Your task to perform on an android device: turn off smart reply in the gmail app Image 0: 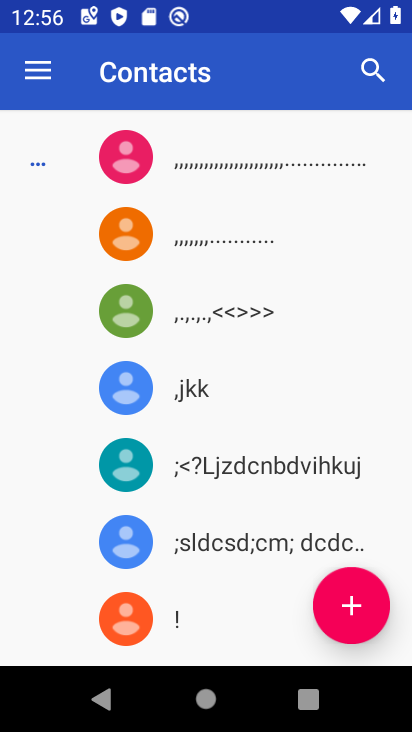
Step 0: press home button
Your task to perform on an android device: turn off smart reply in the gmail app Image 1: 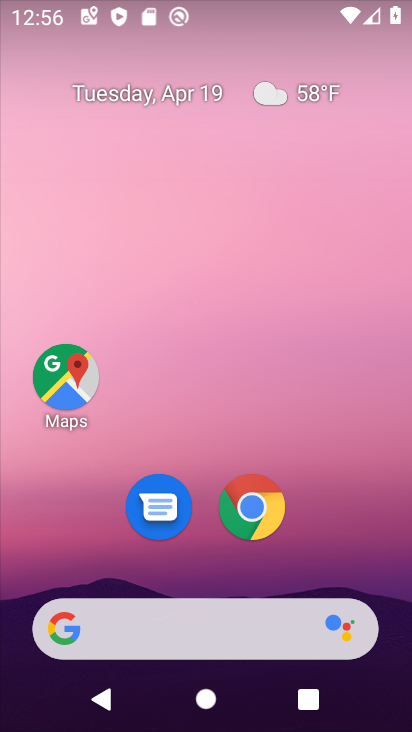
Step 1: drag from (185, 580) to (188, 191)
Your task to perform on an android device: turn off smart reply in the gmail app Image 2: 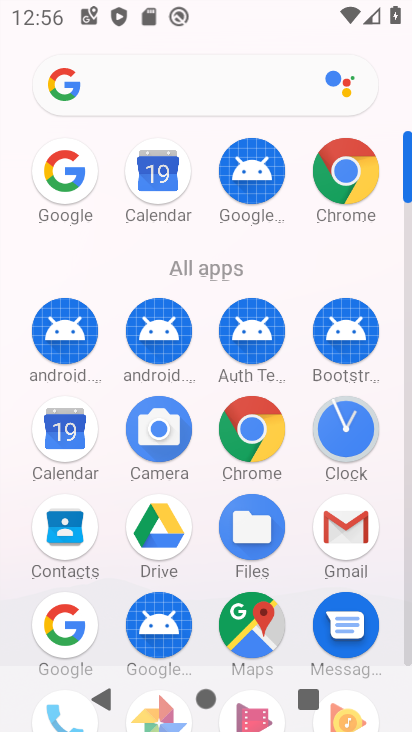
Step 2: click (354, 538)
Your task to perform on an android device: turn off smart reply in the gmail app Image 3: 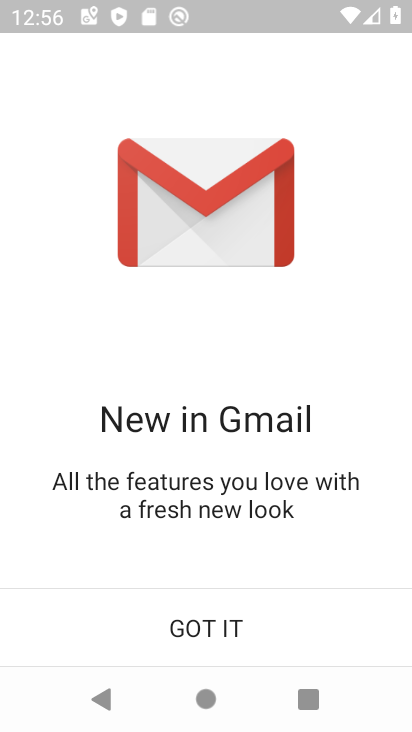
Step 3: click (225, 633)
Your task to perform on an android device: turn off smart reply in the gmail app Image 4: 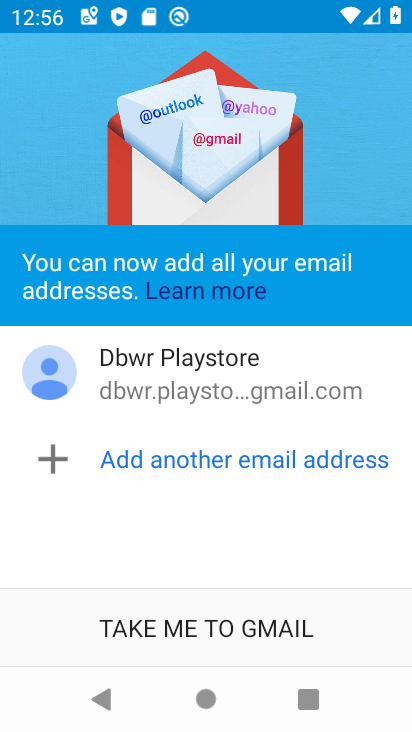
Step 4: click (197, 632)
Your task to perform on an android device: turn off smart reply in the gmail app Image 5: 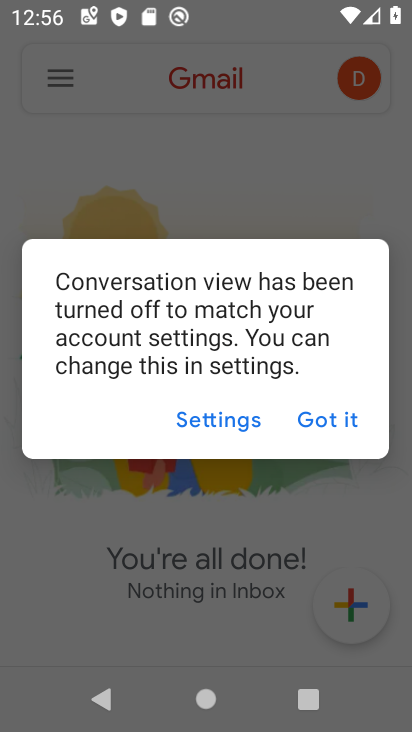
Step 5: click (337, 419)
Your task to perform on an android device: turn off smart reply in the gmail app Image 6: 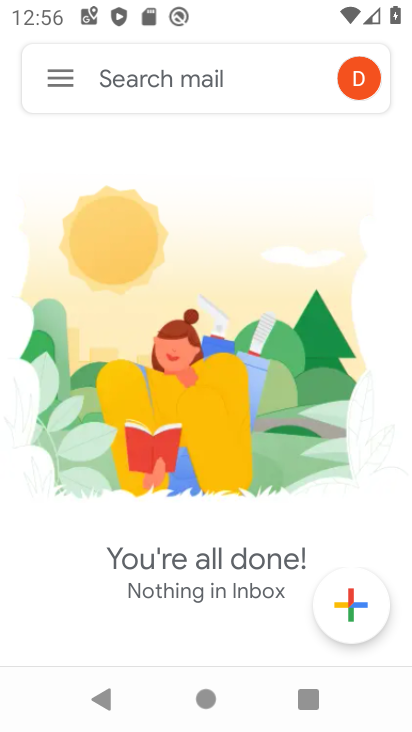
Step 6: click (63, 71)
Your task to perform on an android device: turn off smart reply in the gmail app Image 7: 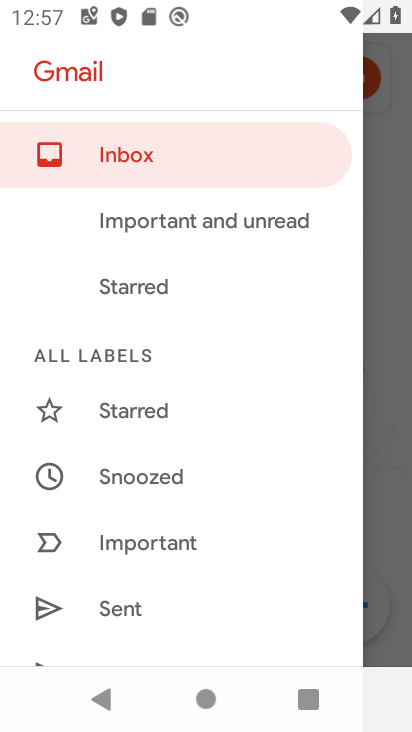
Step 7: drag from (175, 614) to (260, 197)
Your task to perform on an android device: turn off smart reply in the gmail app Image 8: 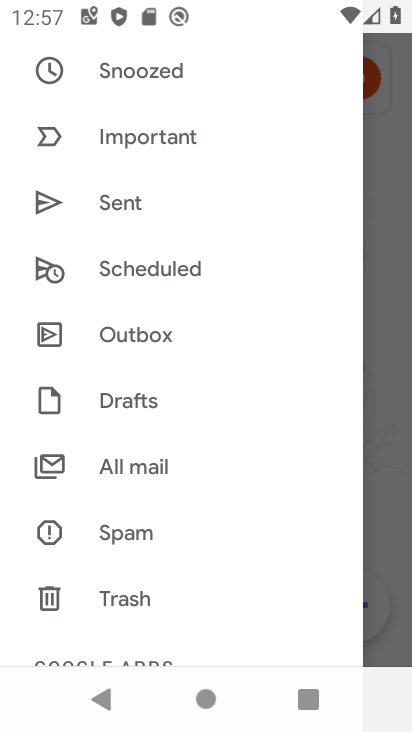
Step 8: drag from (172, 542) to (265, 201)
Your task to perform on an android device: turn off smart reply in the gmail app Image 9: 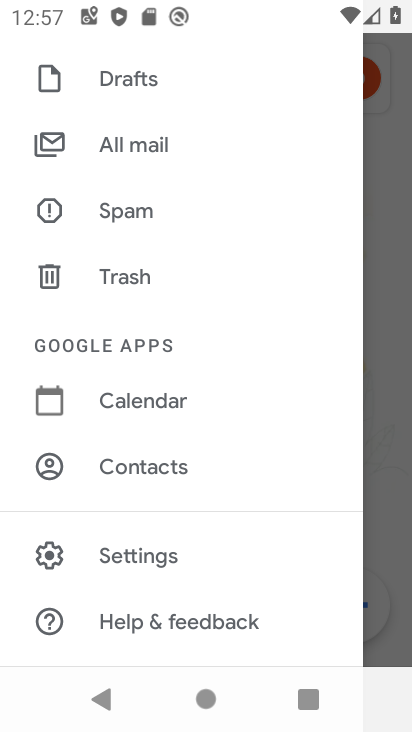
Step 9: click (150, 554)
Your task to perform on an android device: turn off smart reply in the gmail app Image 10: 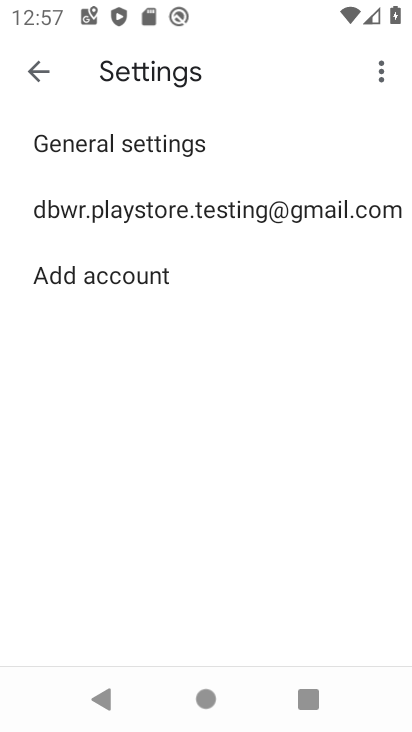
Step 10: click (167, 213)
Your task to perform on an android device: turn off smart reply in the gmail app Image 11: 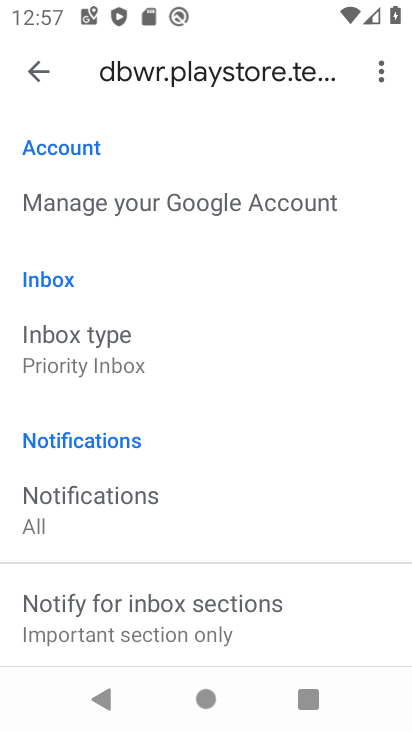
Step 11: drag from (114, 556) to (181, 251)
Your task to perform on an android device: turn off smart reply in the gmail app Image 12: 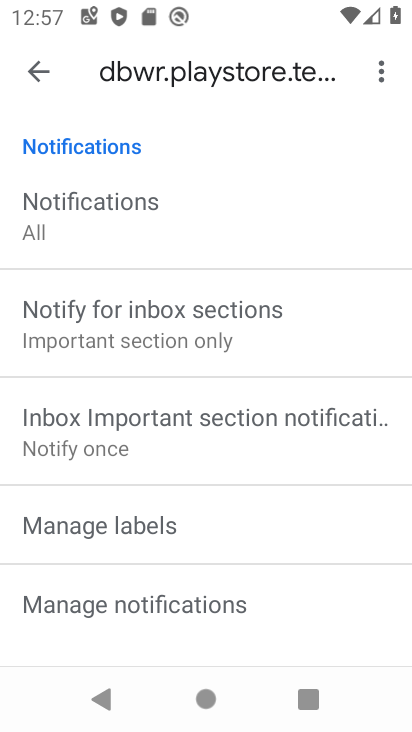
Step 12: drag from (128, 576) to (205, 342)
Your task to perform on an android device: turn off smart reply in the gmail app Image 13: 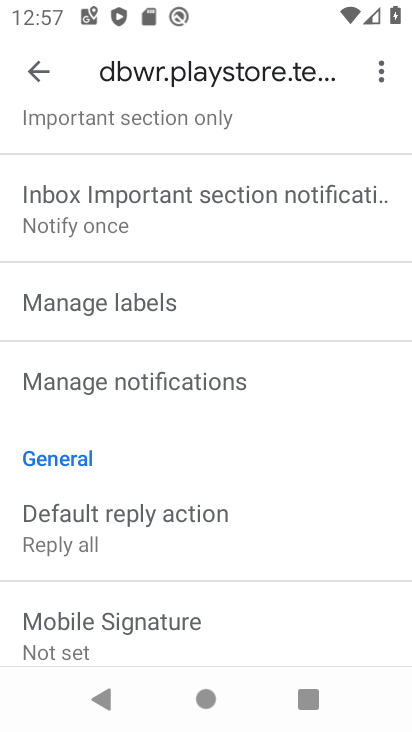
Step 13: drag from (100, 592) to (218, 299)
Your task to perform on an android device: turn off smart reply in the gmail app Image 14: 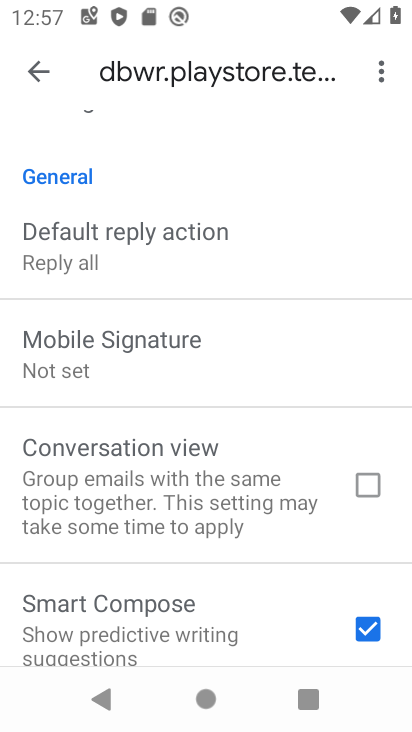
Step 14: drag from (174, 541) to (289, 320)
Your task to perform on an android device: turn off smart reply in the gmail app Image 15: 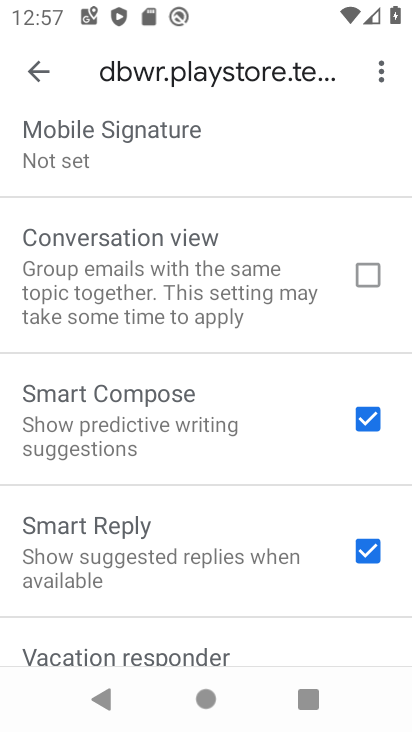
Step 15: click (367, 556)
Your task to perform on an android device: turn off smart reply in the gmail app Image 16: 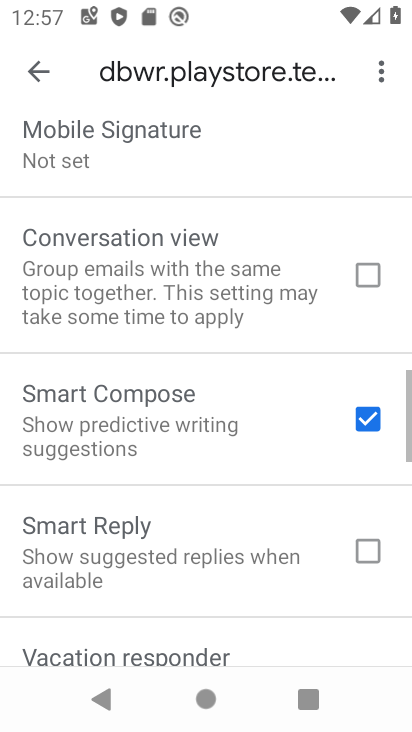
Step 16: task complete